Your task to perform on an android device: turn on notifications settings in the gmail app Image 0: 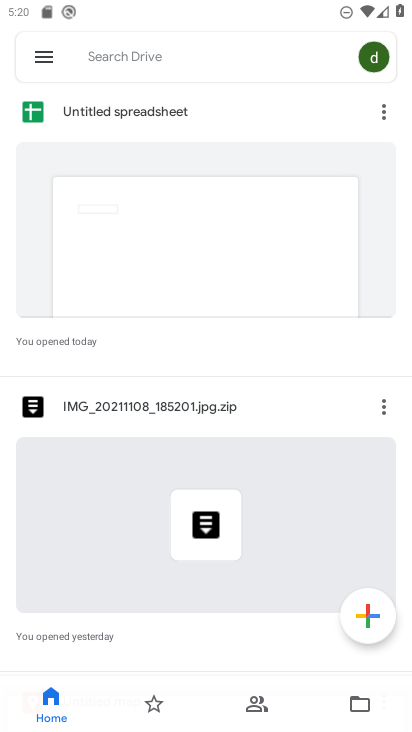
Step 0: press home button
Your task to perform on an android device: turn on notifications settings in the gmail app Image 1: 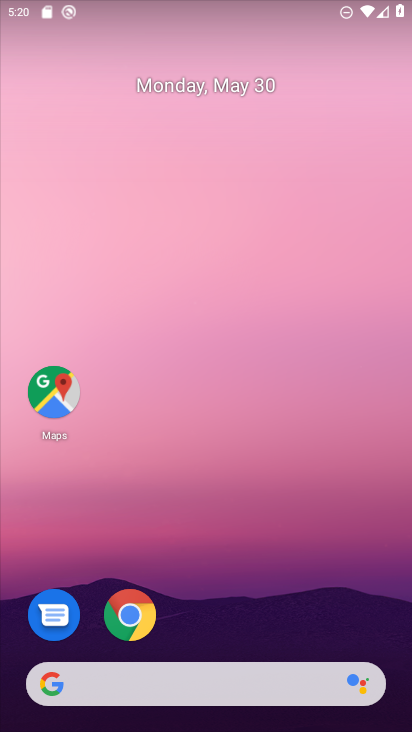
Step 1: drag from (179, 612) to (254, 0)
Your task to perform on an android device: turn on notifications settings in the gmail app Image 2: 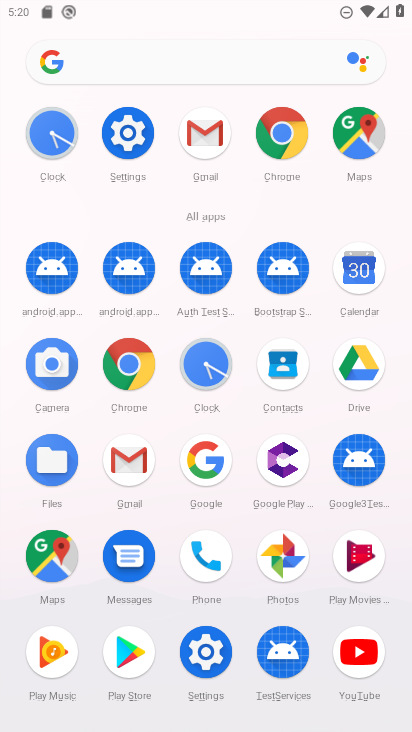
Step 2: click (202, 163)
Your task to perform on an android device: turn on notifications settings in the gmail app Image 3: 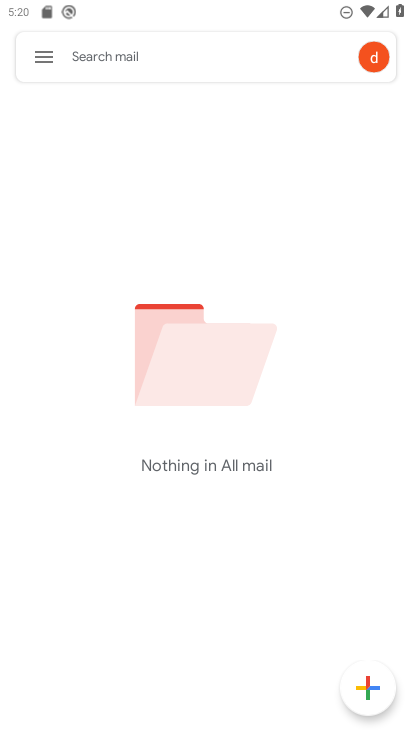
Step 3: click (45, 56)
Your task to perform on an android device: turn on notifications settings in the gmail app Image 4: 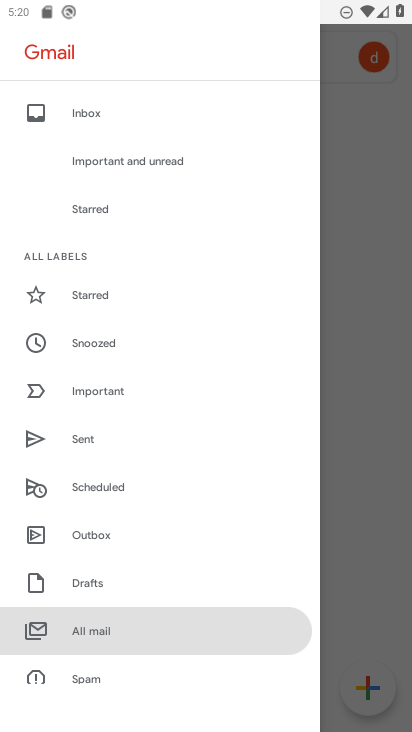
Step 4: drag from (151, 661) to (188, 165)
Your task to perform on an android device: turn on notifications settings in the gmail app Image 5: 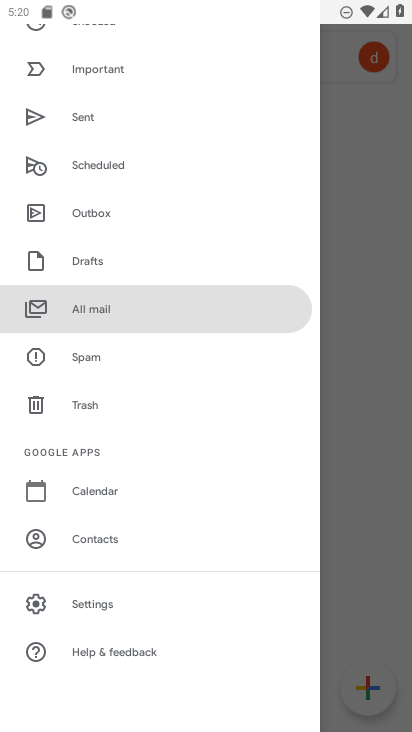
Step 5: click (132, 604)
Your task to perform on an android device: turn on notifications settings in the gmail app Image 6: 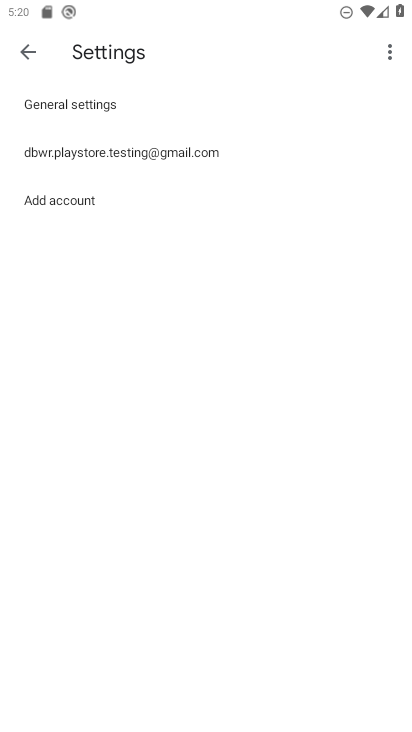
Step 6: click (250, 156)
Your task to perform on an android device: turn on notifications settings in the gmail app Image 7: 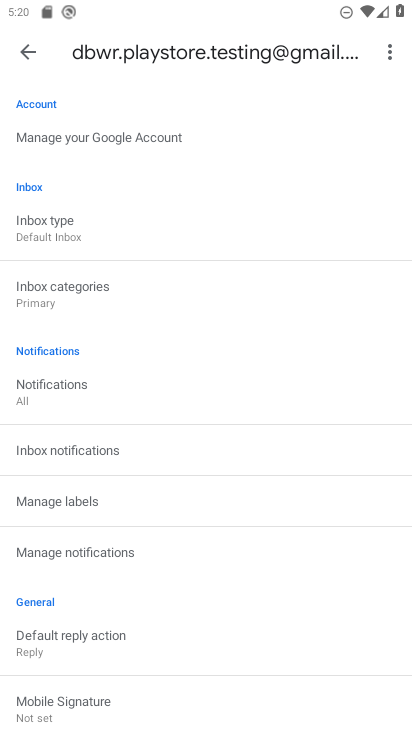
Step 7: click (78, 396)
Your task to perform on an android device: turn on notifications settings in the gmail app Image 8: 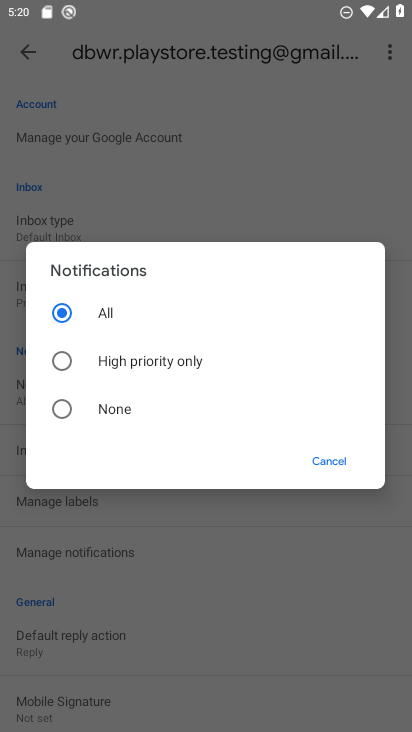
Step 8: task complete